Your task to perform on an android device: View the shopping cart on costco. Search for jbl flip 4 on costco, select the first entry, add it to the cart, then select checkout. Image 0: 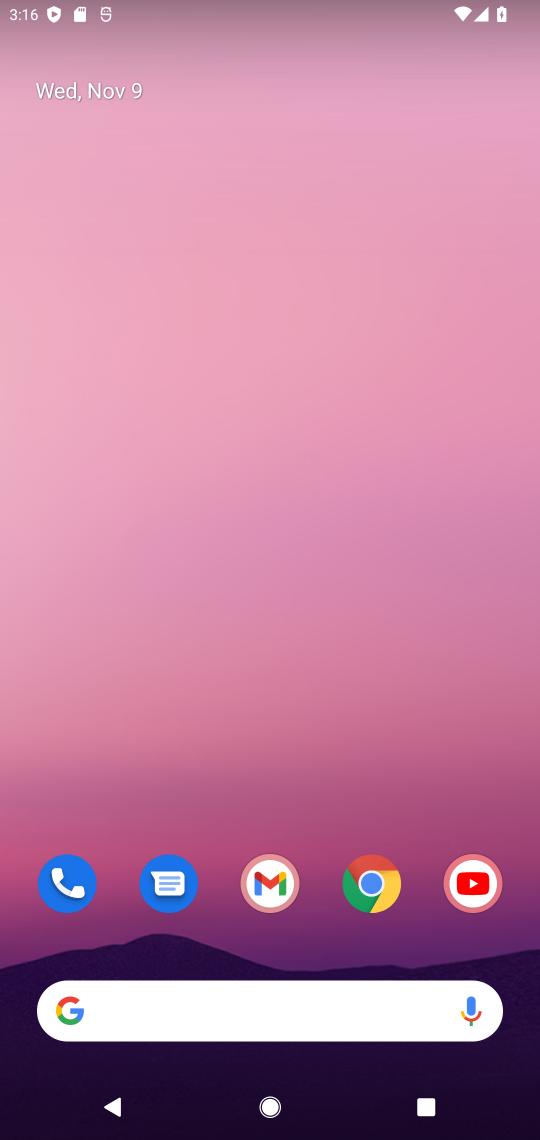
Step 0: click (375, 885)
Your task to perform on an android device: View the shopping cart on costco. Search for jbl flip 4 on costco, select the first entry, add it to the cart, then select checkout. Image 1: 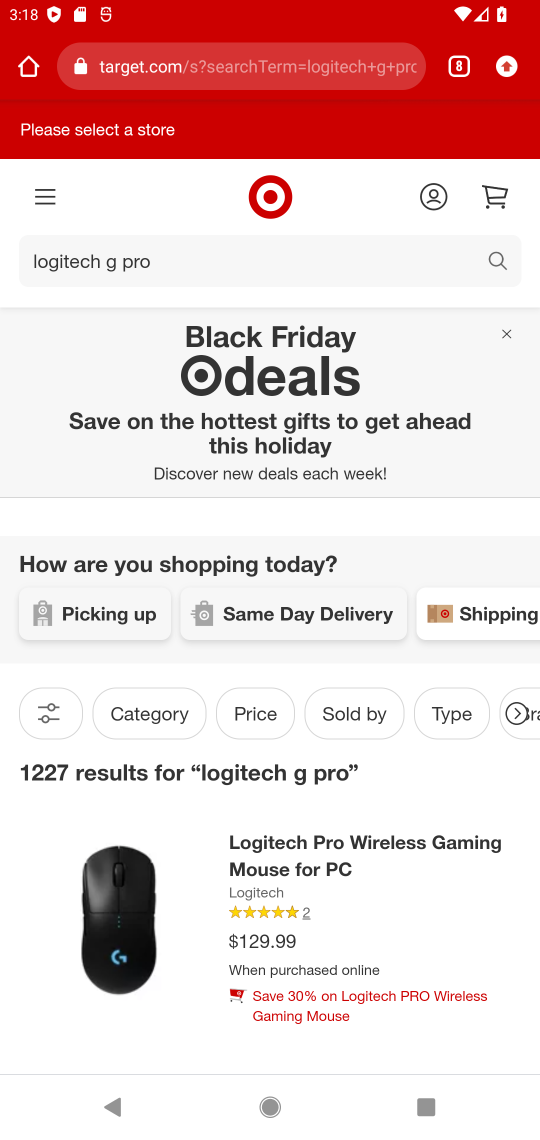
Step 1: click (458, 63)
Your task to perform on an android device: View the shopping cart on costco. Search for jbl flip 4 on costco, select the first entry, add it to the cart, then select checkout. Image 2: 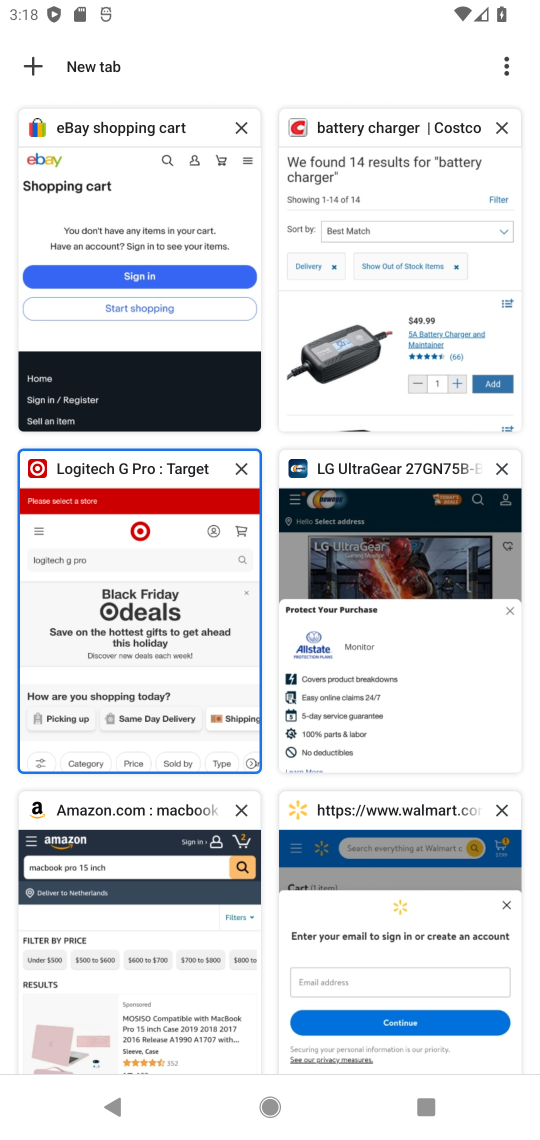
Step 2: click (340, 235)
Your task to perform on an android device: View the shopping cart on costco. Search for jbl flip 4 on costco, select the first entry, add it to the cart, then select checkout. Image 3: 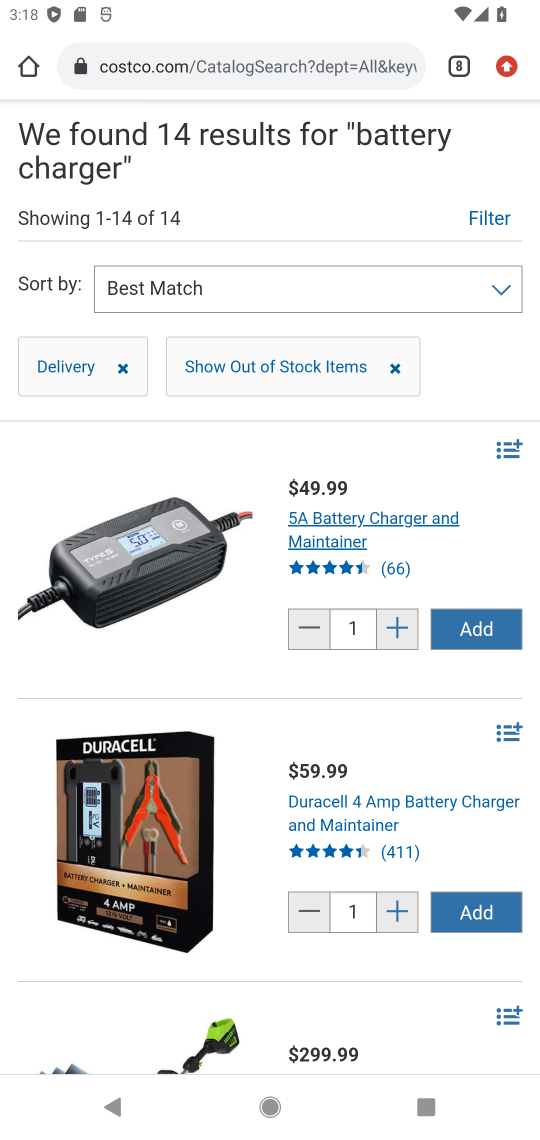
Step 3: drag from (269, 154) to (250, 601)
Your task to perform on an android device: View the shopping cart on costco. Search for jbl flip 4 on costco, select the first entry, add it to the cart, then select checkout. Image 4: 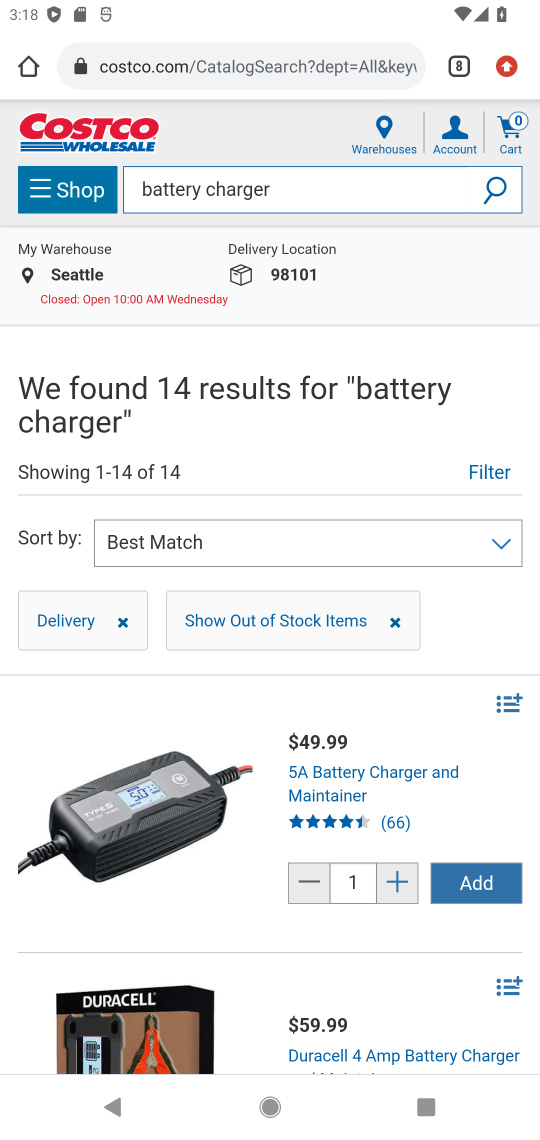
Step 4: click (237, 190)
Your task to perform on an android device: View the shopping cart on costco. Search for jbl flip 4 on costco, select the first entry, add it to the cart, then select checkout. Image 5: 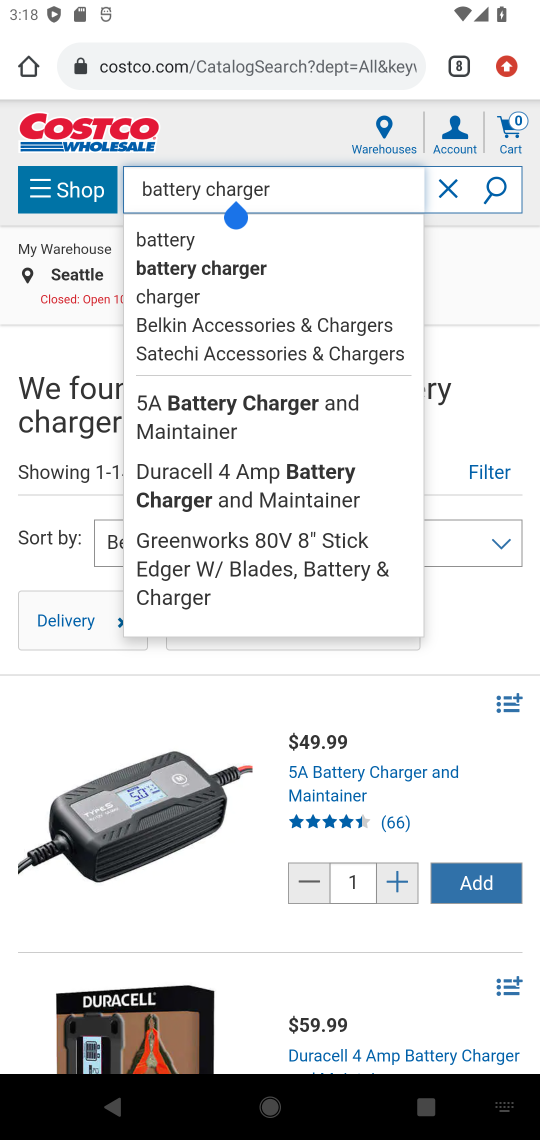
Step 5: click (448, 188)
Your task to perform on an android device: View the shopping cart on costco. Search for jbl flip 4 on costco, select the first entry, add it to the cart, then select checkout. Image 6: 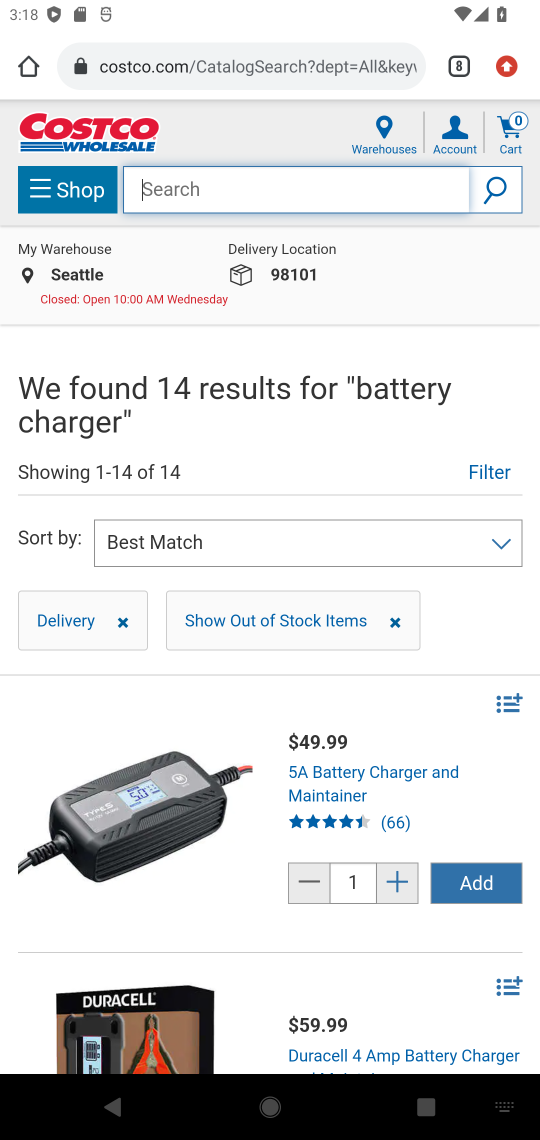
Step 6: type " jbl flip 4"
Your task to perform on an android device: View the shopping cart on costco. Search for jbl flip 4 on costco, select the first entry, add it to the cart, then select checkout. Image 7: 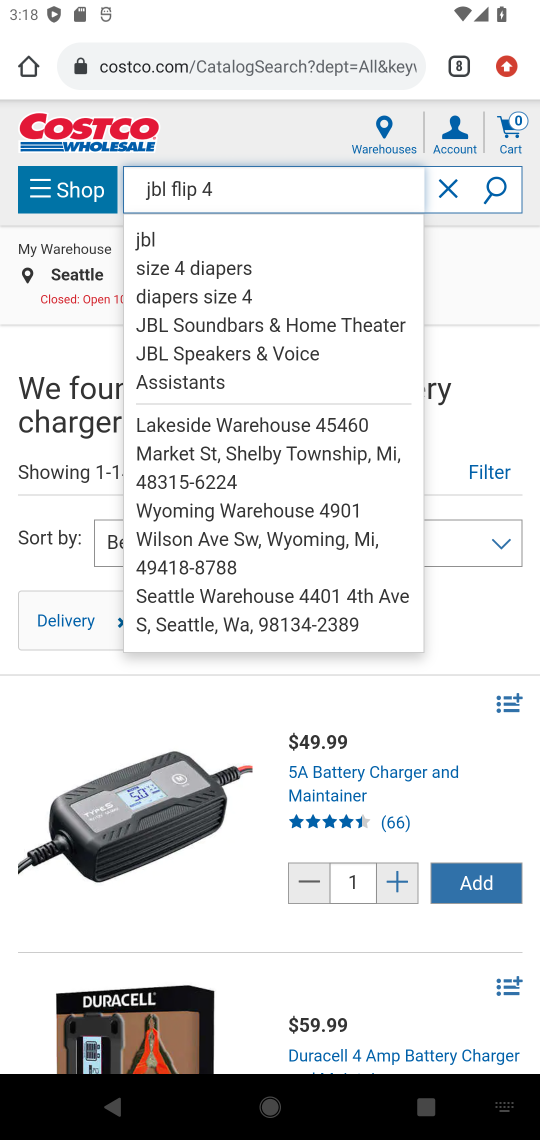
Step 7: click (486, 189)
Your task to perform on an android device: View the shopping cart on costco. Search for jbl flip 4 on costco, select the first entry, add it to the cart, then select checkout. Image 8: 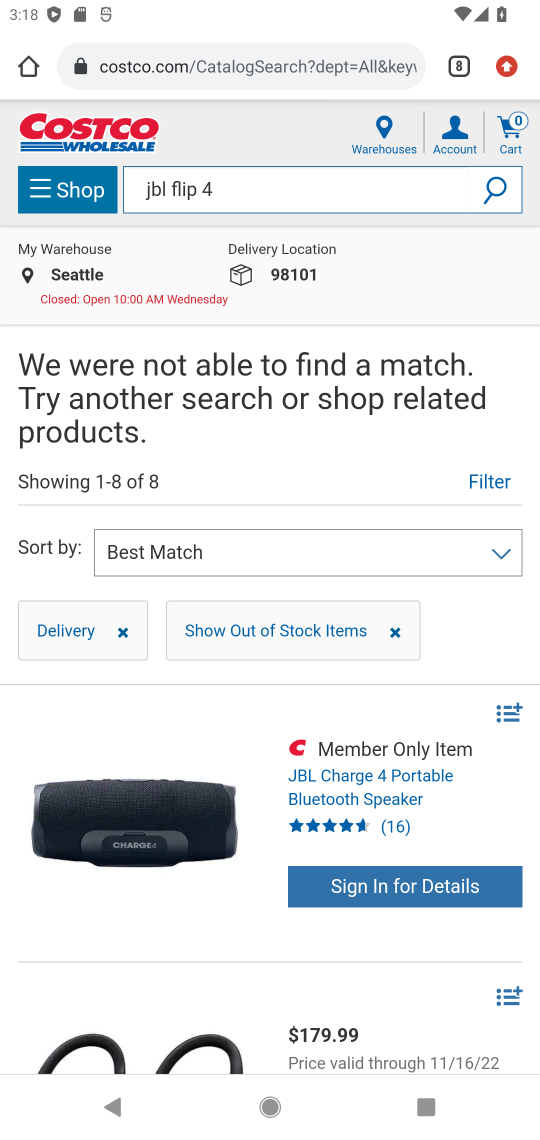
Step 8: click (351, 811)
Your task to perform on an android device: View the shopping cart on costco. Search for jbl flip 4 on costco, select the first entry, add it to the cart, then select checkout. Image 9: 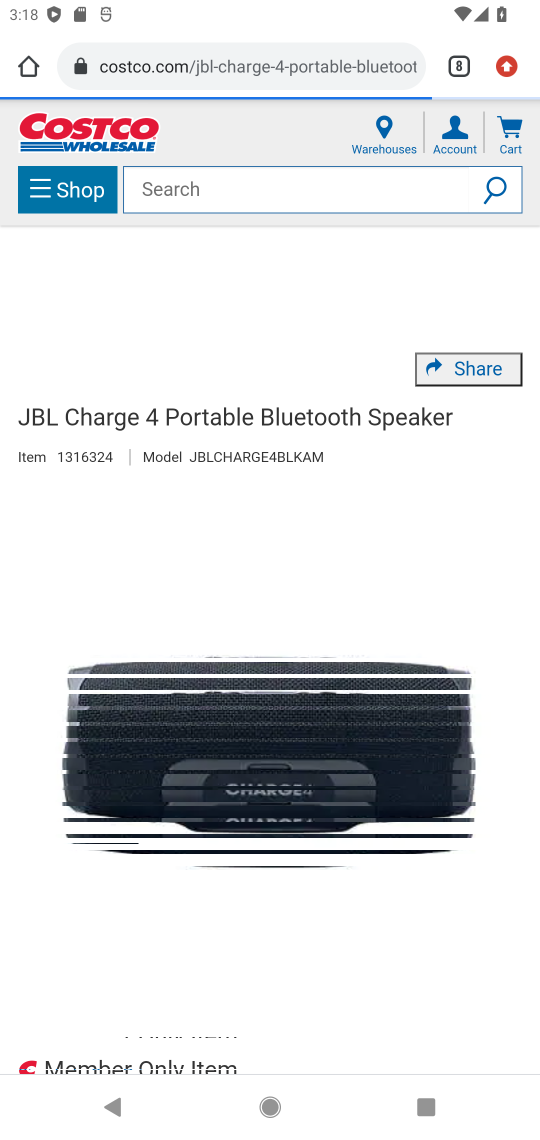
Step 9: task complete